Your task to perform on an android device: Go to Google maps Image 0: 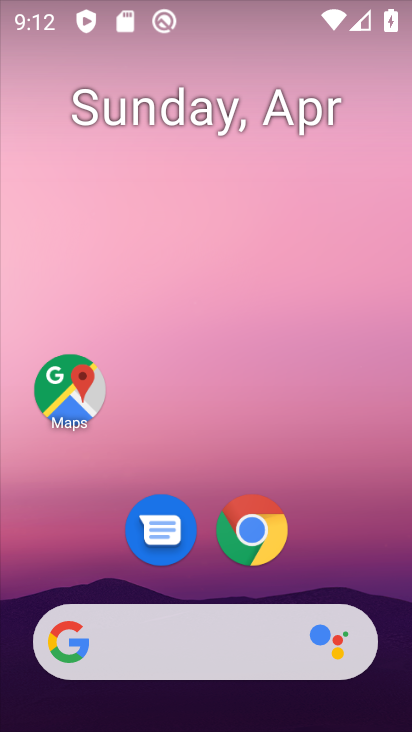
Step 0: click (68, 384)
Your task to perform on an android device: Go to Google maps Image 1: 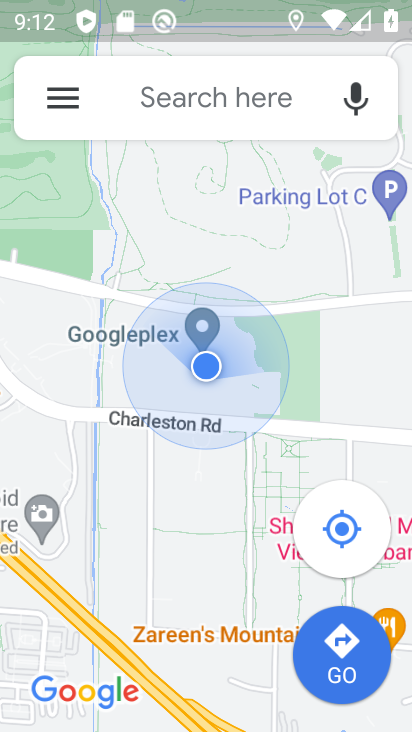
Step 1: task complete